Your task to perform on an android device: delete location history Image 0: 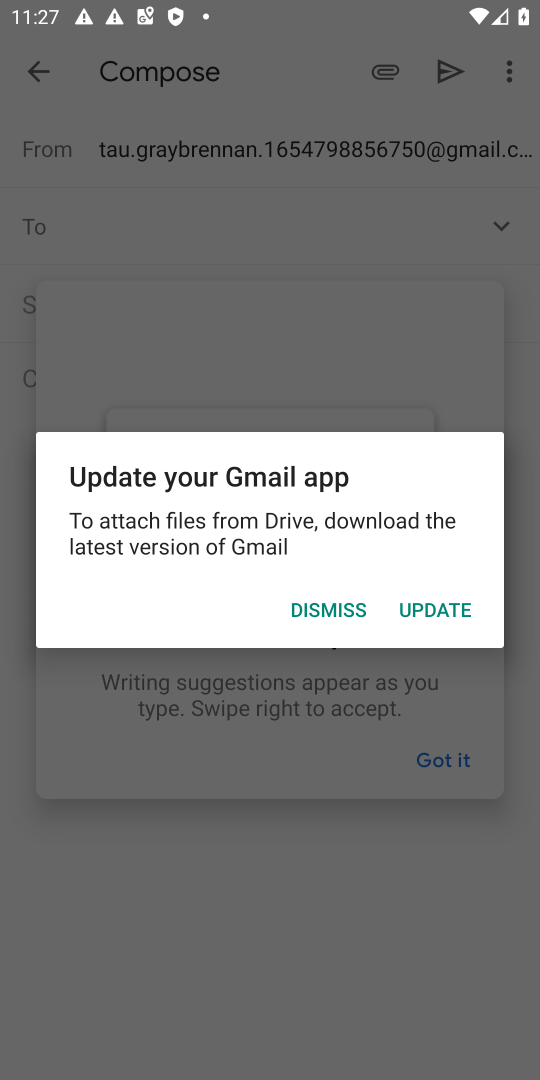
Step 0: press home button
Your task to perform on an android device: delete location history Image 1: 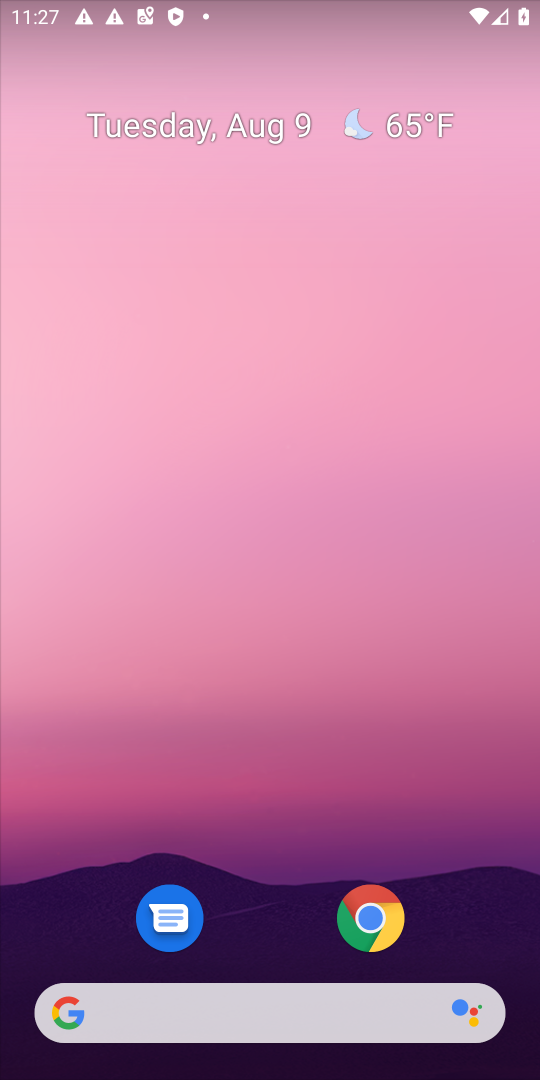
Step 1: drag from (260, 901) to (235, 32)
Your task to perform on an android device: delete location history Image 2: 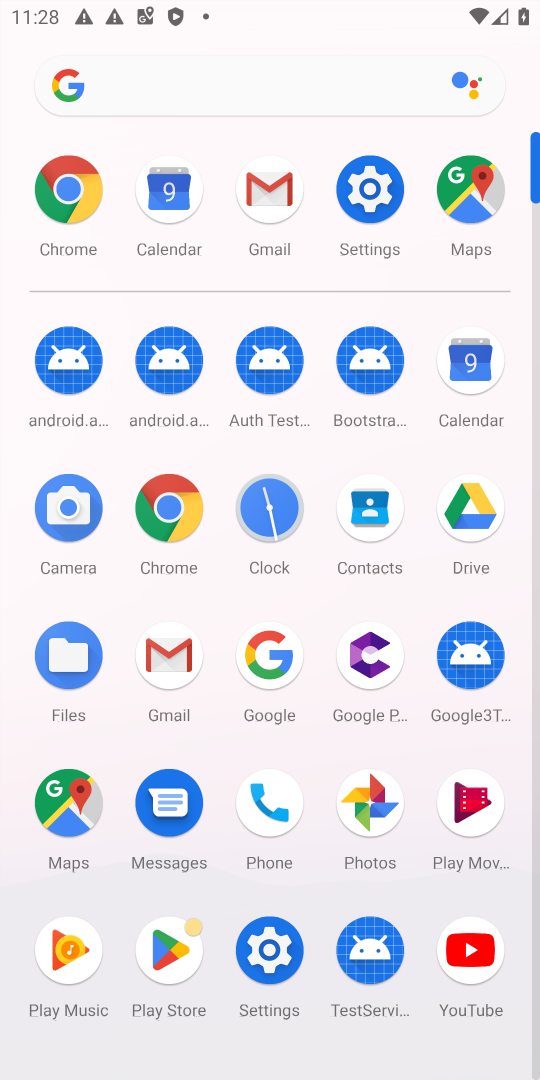
Step 2: click (69, 801)
Your task to perform on an android device: delete location history Image 3: 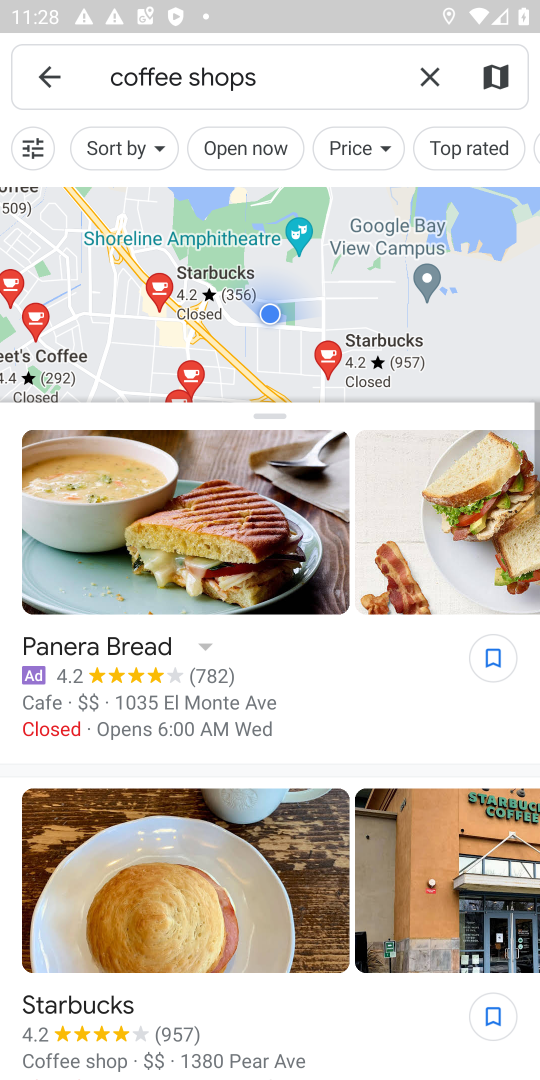
Step 3: click (37, 77)
Your task to perform on an android device: delete location history Image 4: 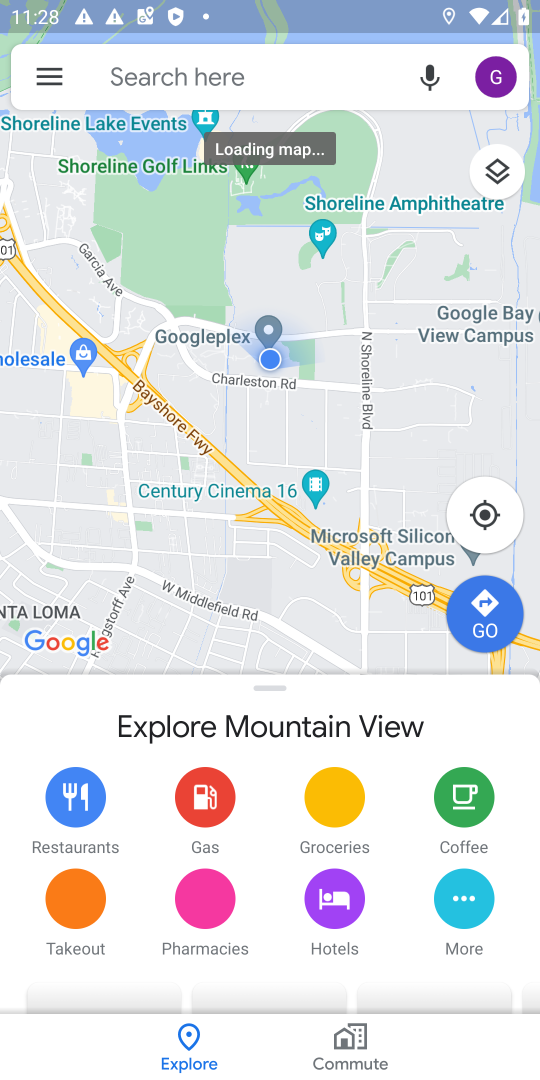
Step 4: click (37, 77)
Your task to perform on an android device: delete location history Image 5: 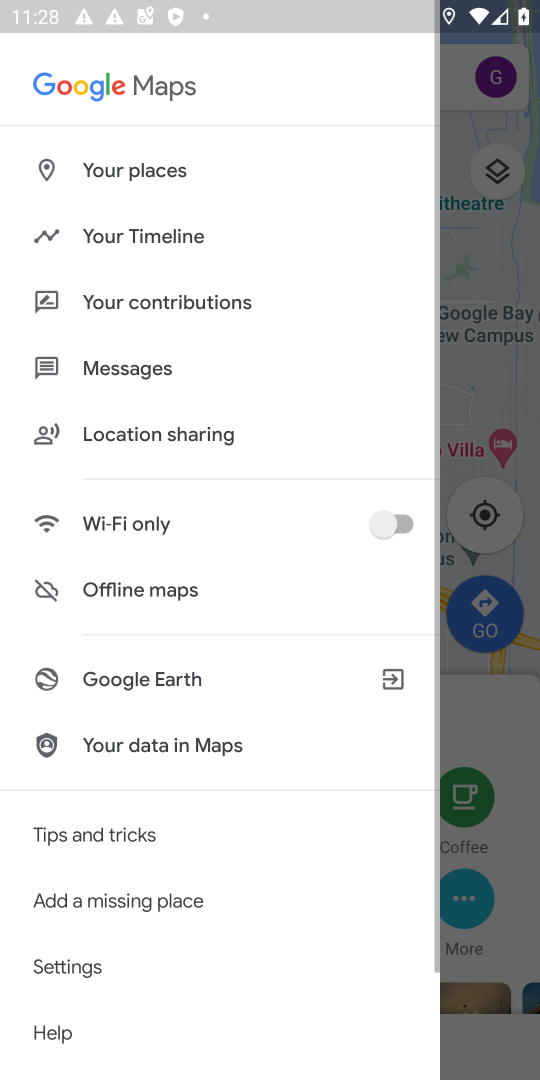
Step 5: click (75, 970)
Your task to perform on an android device: delete location history Image 6: 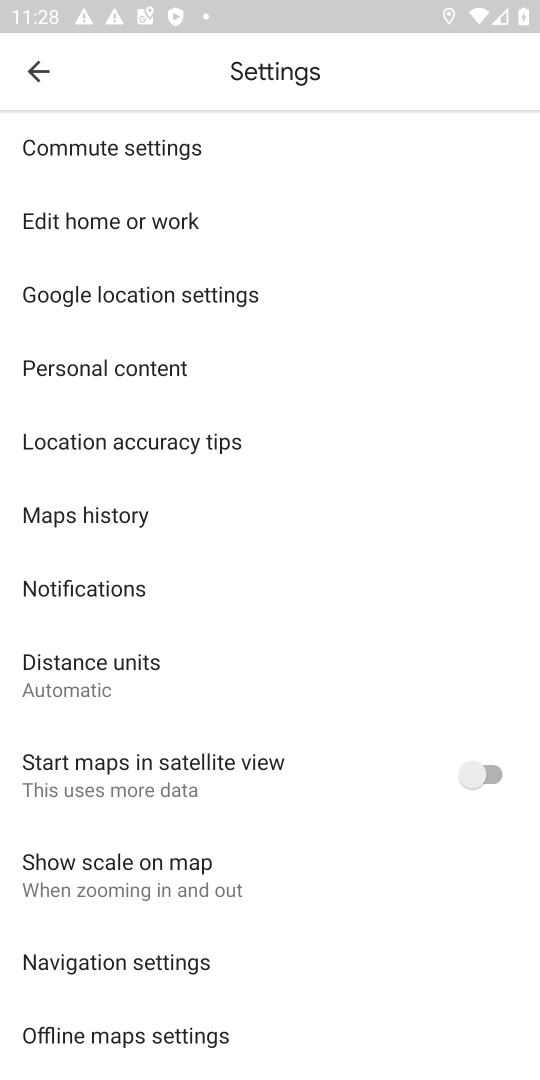
Step 6: click (110, 516)
Your task to perform on an android device: delete location history Image 7: 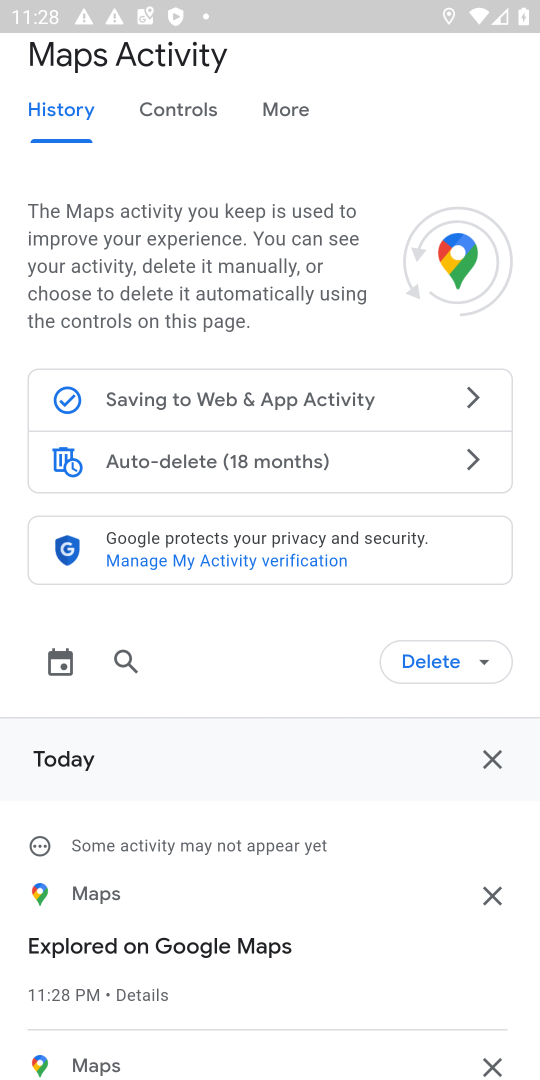
Step 7: click (412, 660)
Your task to perform on an android device: delete location history Image 8: 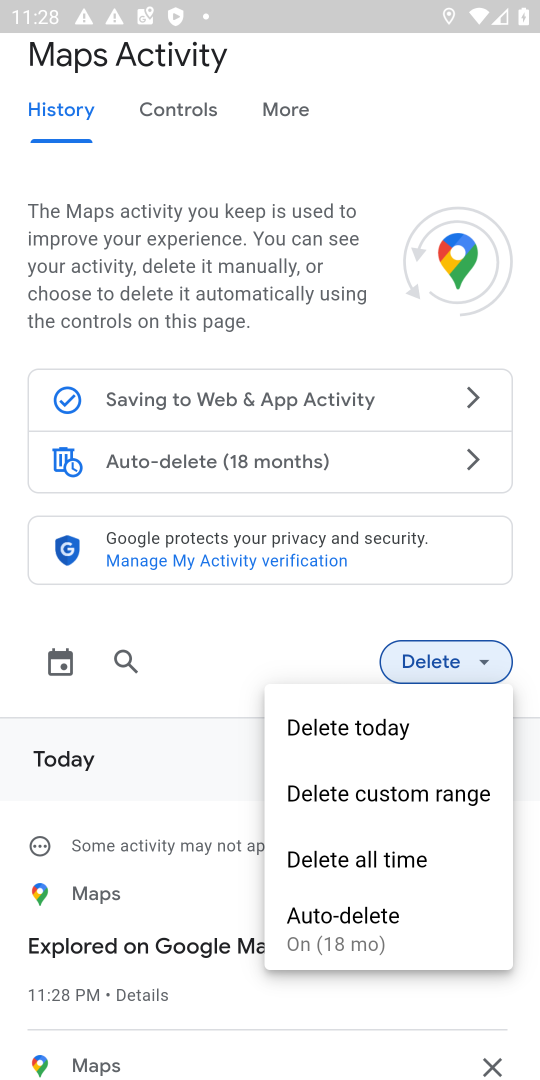
Step 8: click (366, 849)
Your task to perform on an android device: delete location history Image 9: 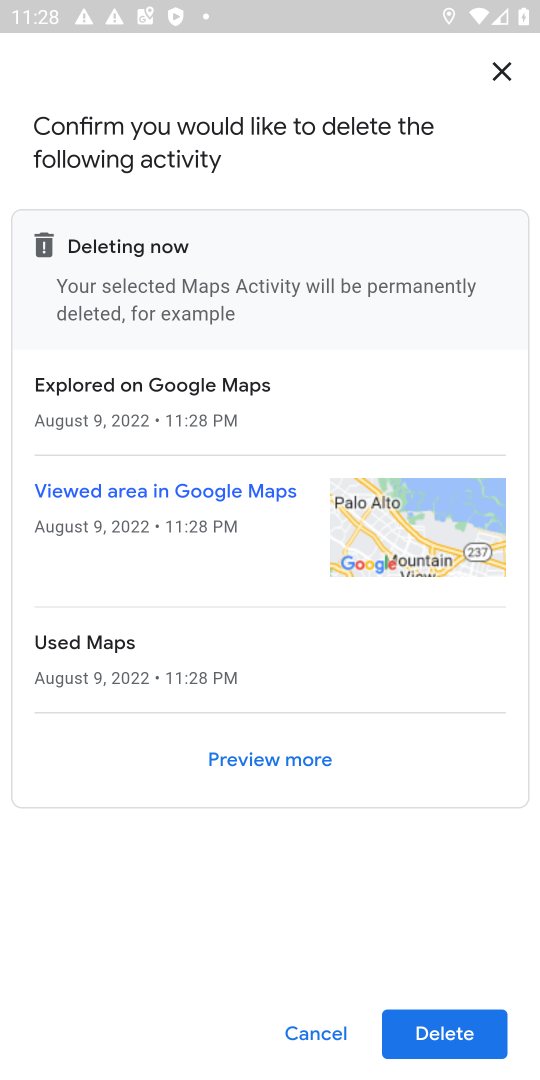
Step 9: click (470, 1044)
Your task to perform on an android device: delete location history Image 10: 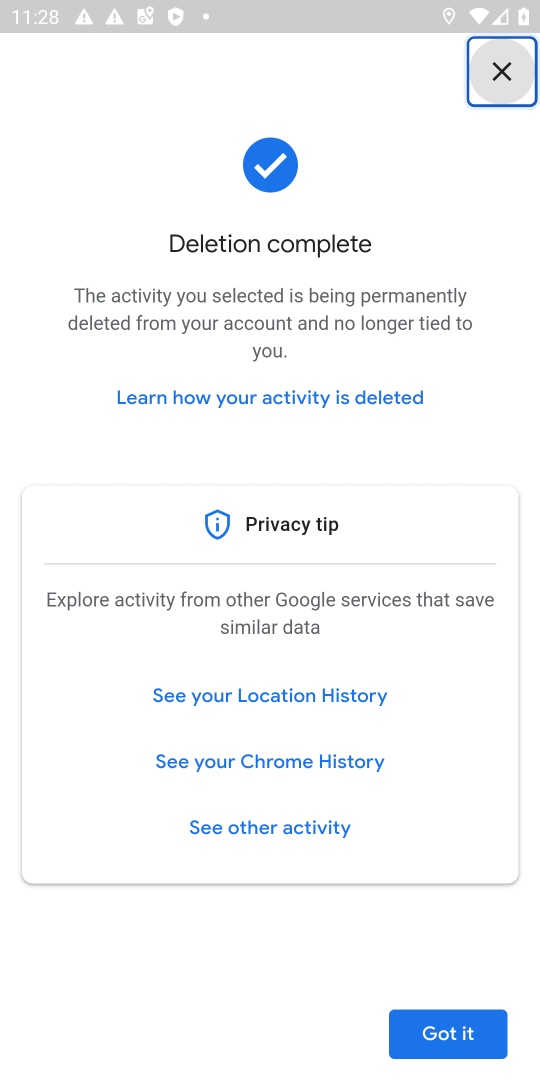
Step 10: click (452, 1039)
Your task to perform on an android device: delete location history Image 11: 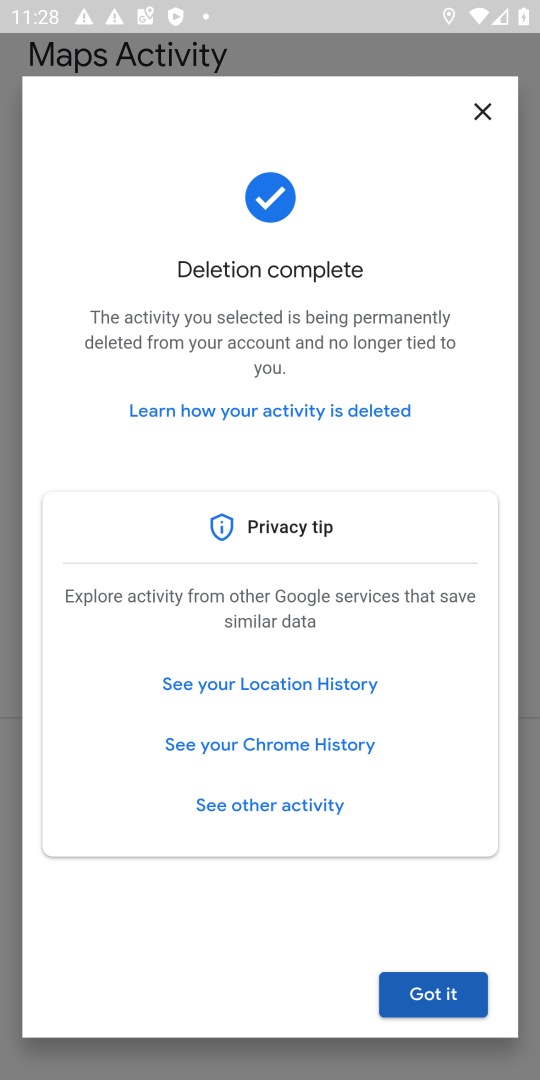
Step 11: task complete